Your task to perform on an android device: turn off javascript in the chrome app Image 0: 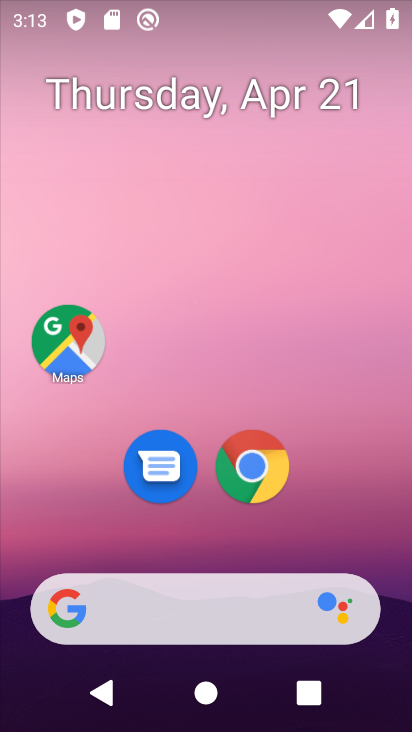
Step 0: click (262, 469)
Your task to perform on an android device: turn off javascript in the chrome app Image 1: 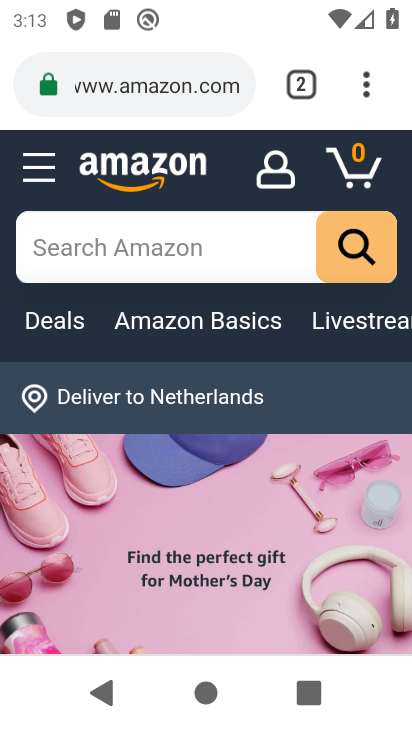
Step 1: click (368, 89)
Your task to perform on an android device: turn off javascript in the chrome app Image 2: 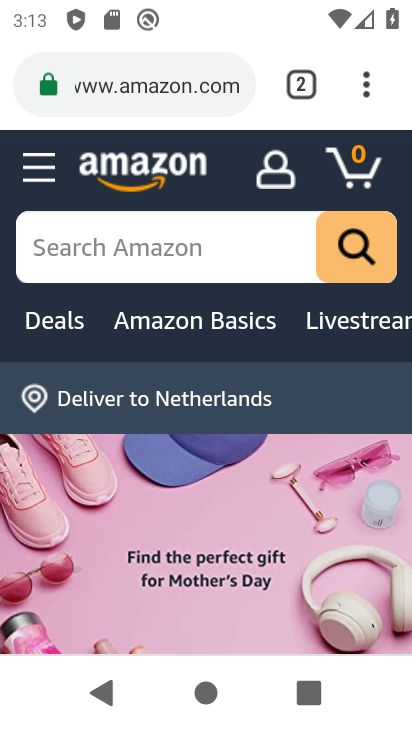
Step 2: click (362, 86)
Your task to perform on an android device: turn off javascript in the chrome app Image 3: 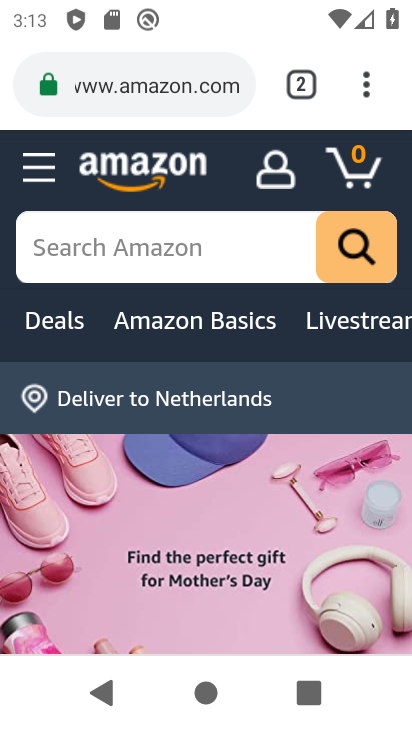
Step 3: drag from (361, 89) to (100, 522)
Your task to perform on an android device: turn off javascript in the chrome app Image 4: 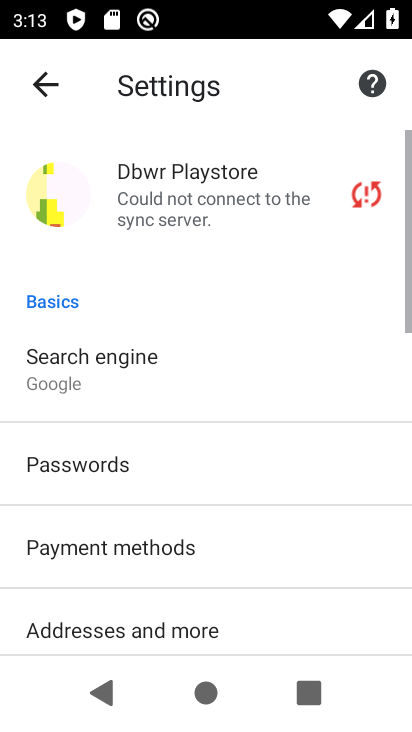
Step 4: drag from (212, 589) to (235, 229)
Your task to perform on an android device: turn off javascript in the chrome app Image 5: 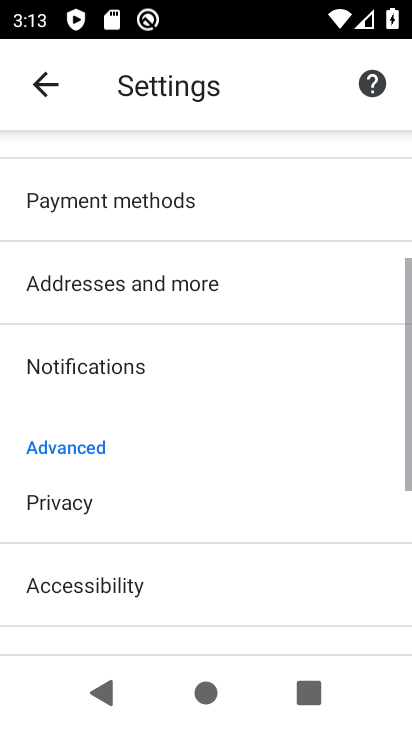
Step 5: drag from (168, 473) to (204, 311)
Your task to perform on an android device: turn off javascript in the chrome app Image 6: 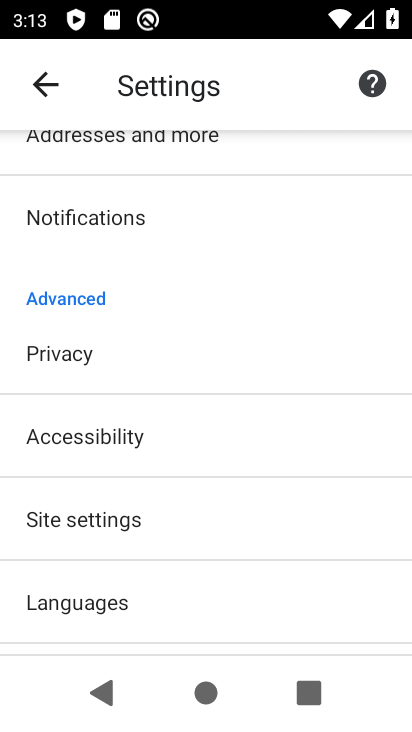
Step 6: click (125, 527)
Your task to perform on an android device: turn off javascript in the chrome app Image 7: 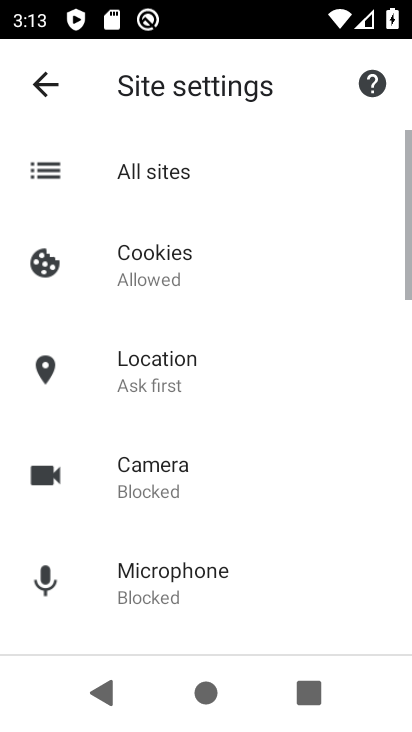
Step 7: drag from (243, 566) to (247, 297)
Your task to perform on an android device: turn off javascript in the chrome app Image 8: 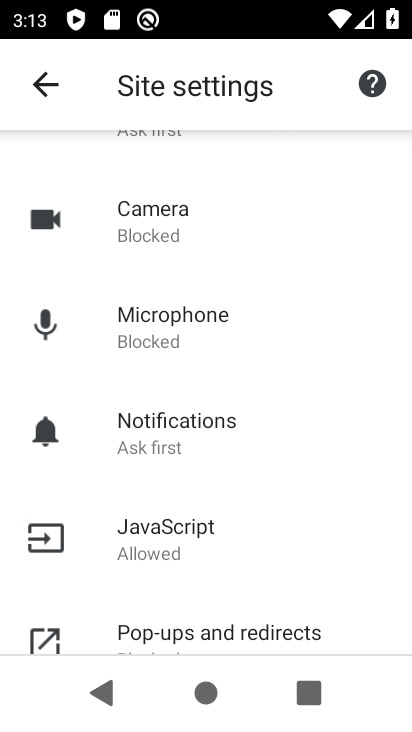
Step 8: click (196, 551)
Your task to perform on an android device: turn off javascript in the chrome app Image 9: 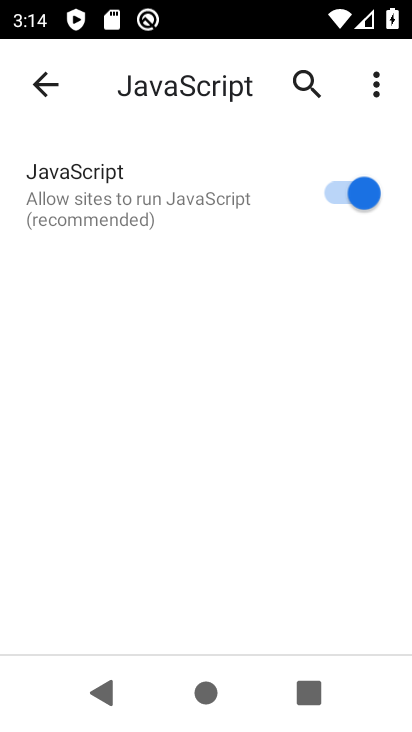
Step 9: click (334, 192)
Your task to perform on an android device: turn off javascript in the chrome app Image 10: 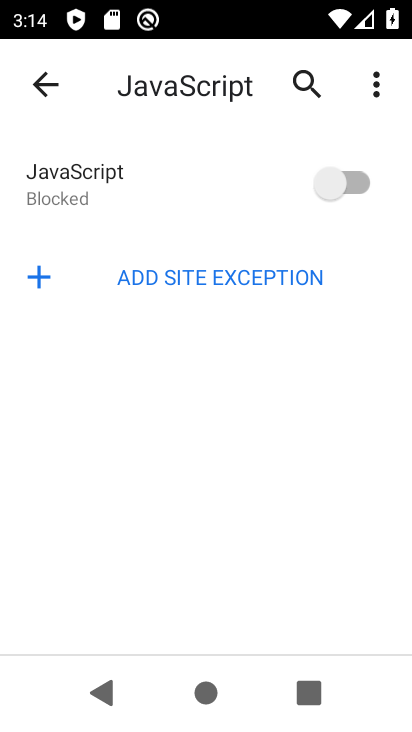
Step 10: task complete